Your task to perform on an android device: check google app version Image 0: 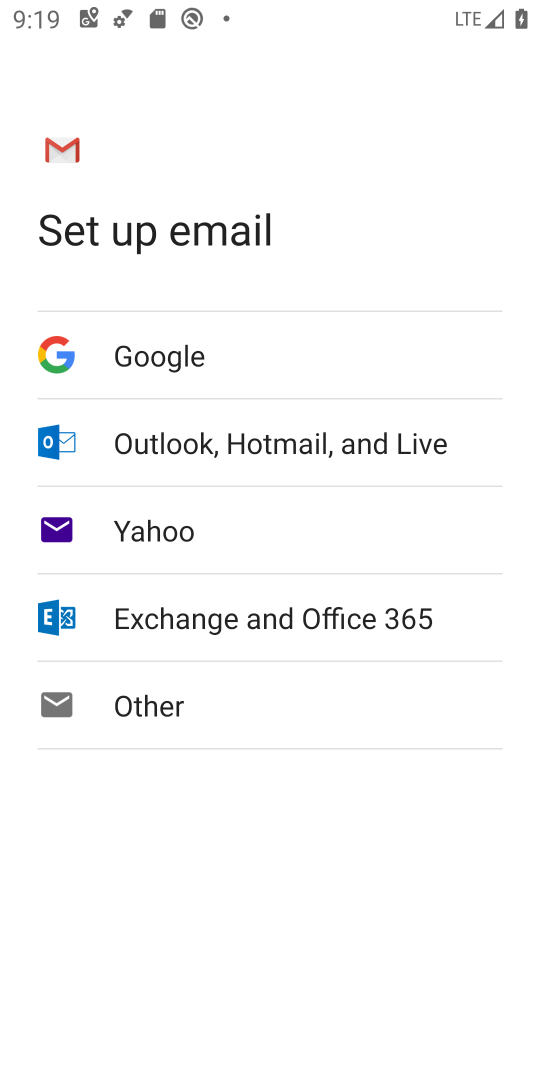
Step 0: press home button
Your task to perform on an android device: check google app version Image 1: 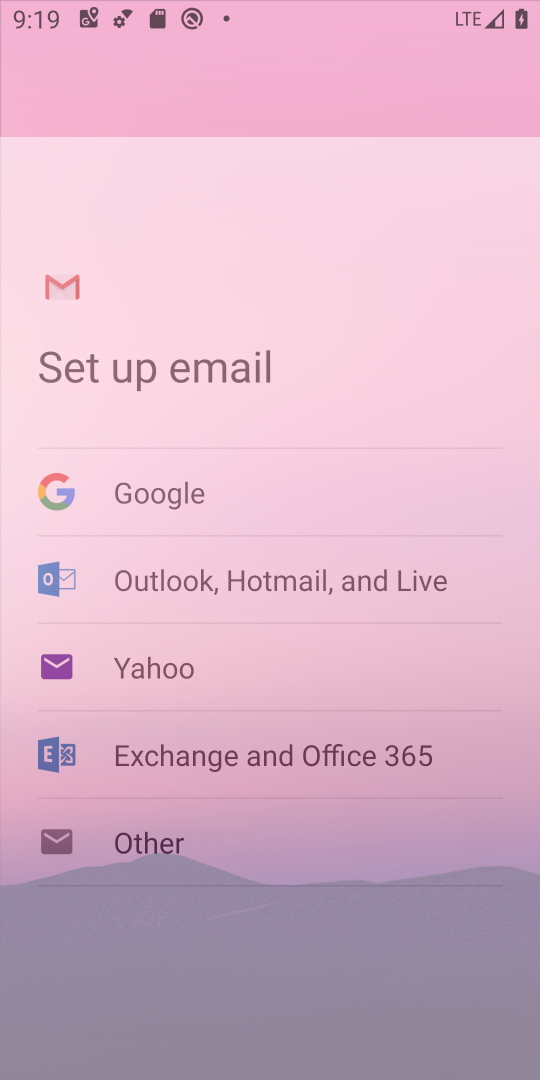
Step 1: press home button
Your task to perform on an android device: check google app version Image 2: 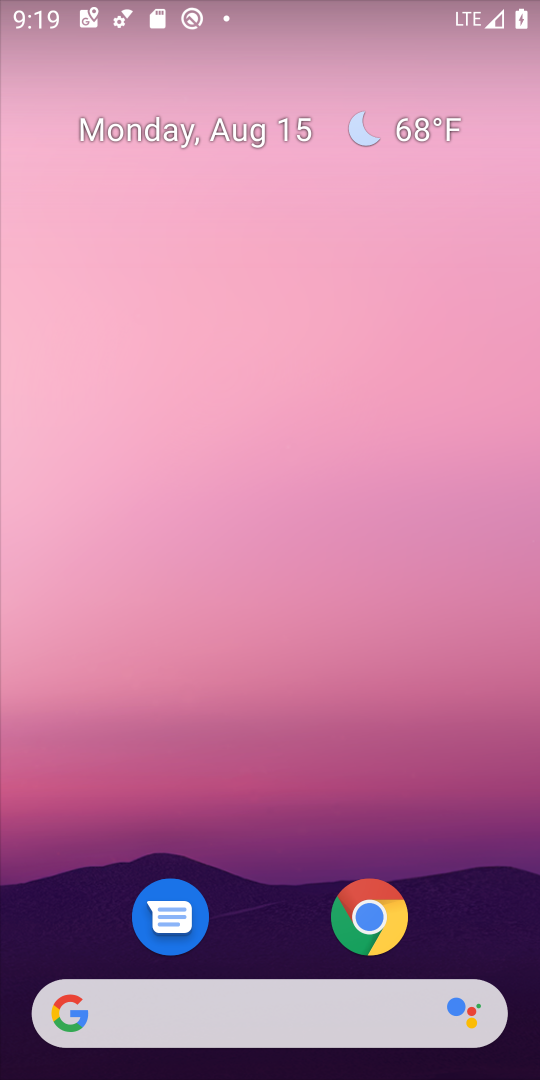
Step 2: click (253, 1001)
Your task to perform on an android device: check google app version Image 3: 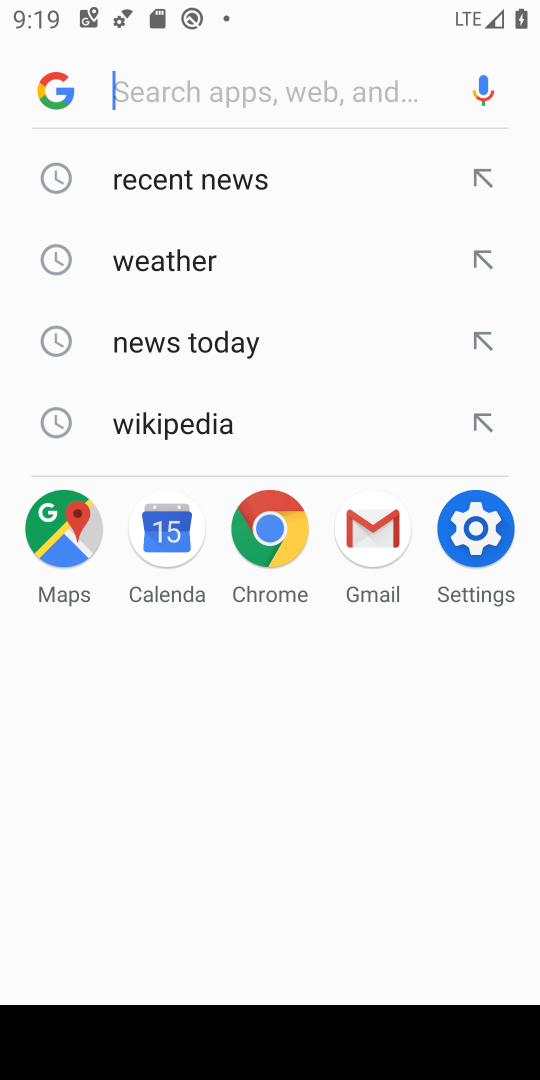
Step 3: click (59, 92)
Your task to perform on an android device: check google app version Image 4: 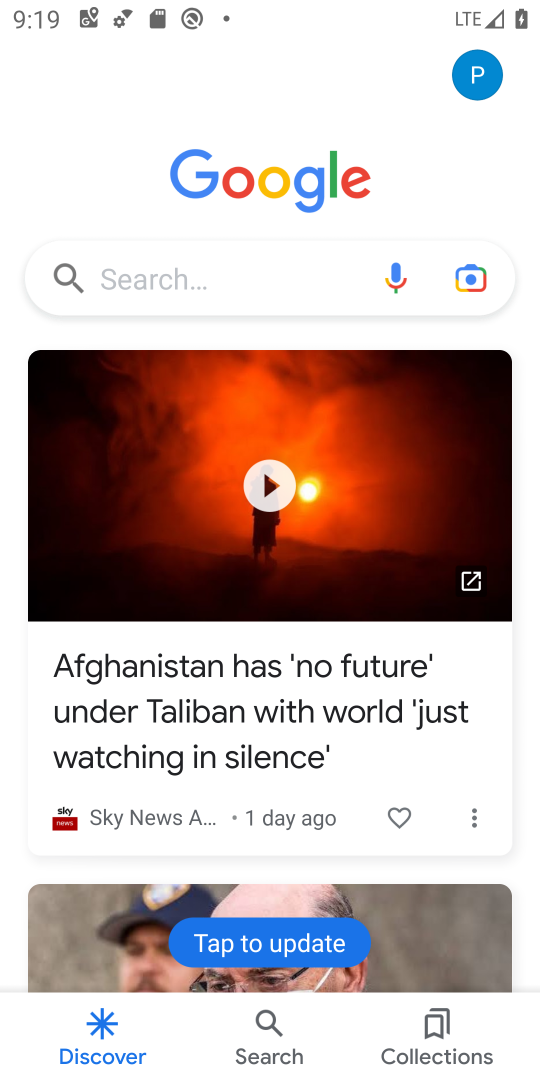
Step 4: click (485, 80)
Your task to perform on an android device: check google app version Image 5: 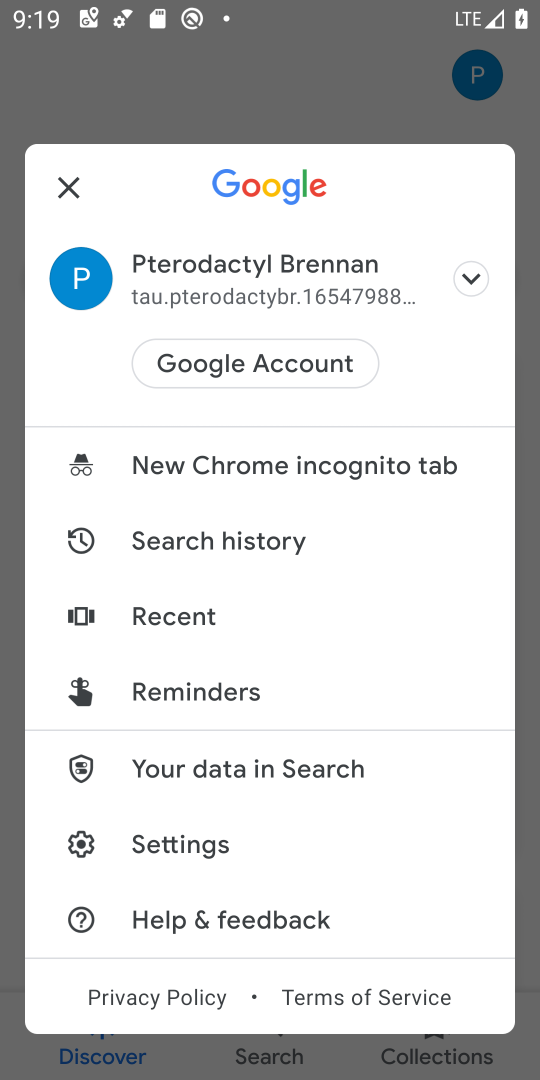
Step 5: click (201, 831)
Your task to perform on an android device: check google app version Image 6: 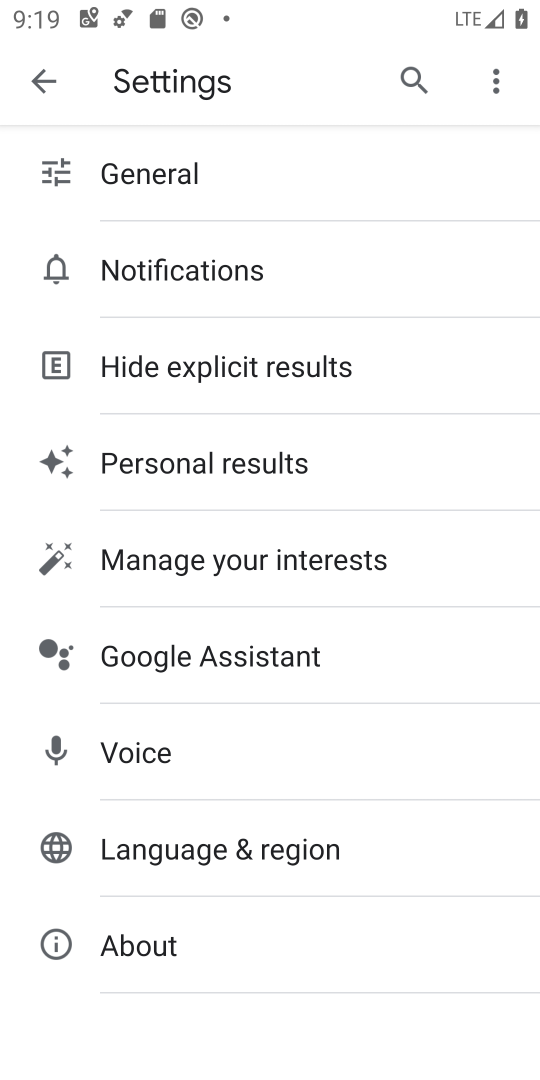
Step 6: click (158, 939)
Your task to perform on an android device: check google app version Image 7: 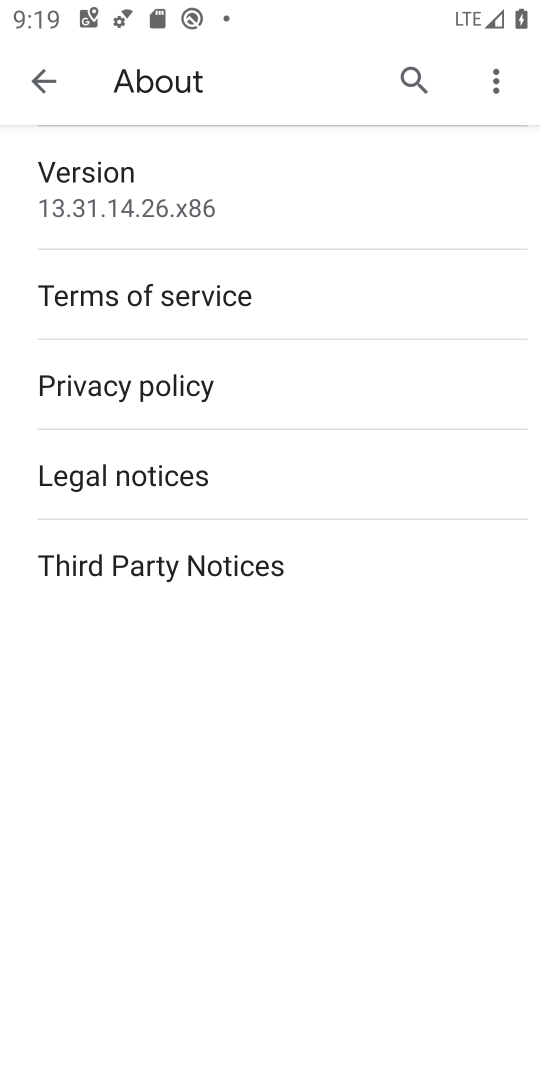
Step 7: click (187, 177)
Your task to perform on an android device: check google app version Image 8: 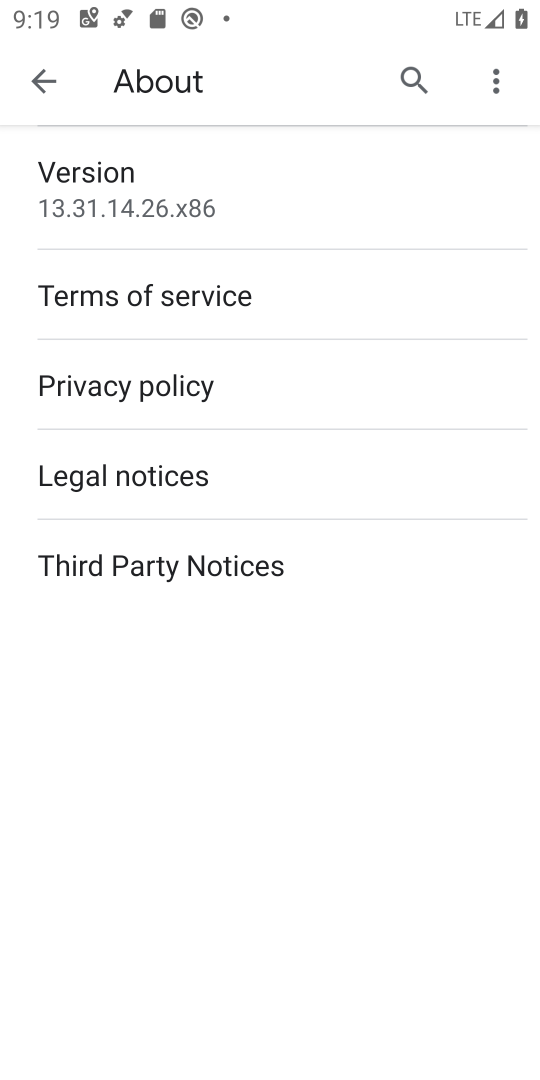
Step 8: task complete